Your task to perform on an android device: Go to eBay Image 0: 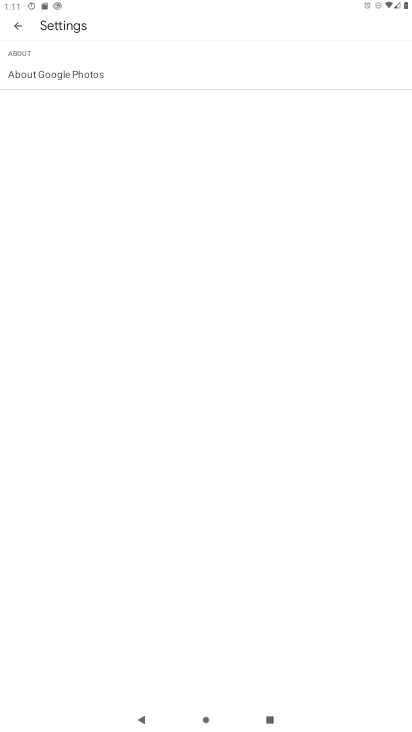
Step 0: press home button
Your task to perform on an android device: Go to eBay Image 1: 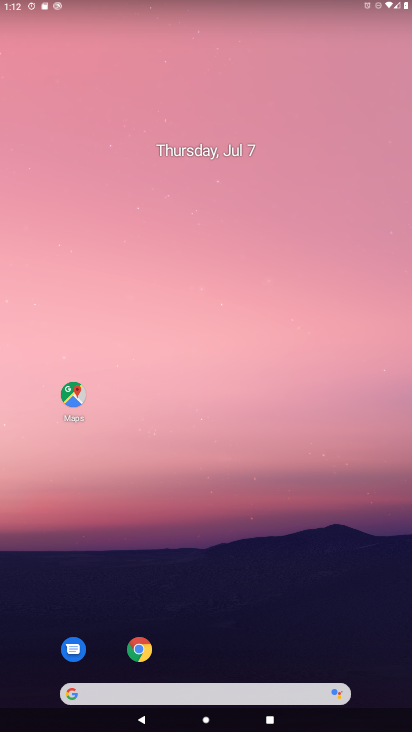
Step 1: click (129, 653)
Your task to perform on an android device: Go to eBay Image 2: 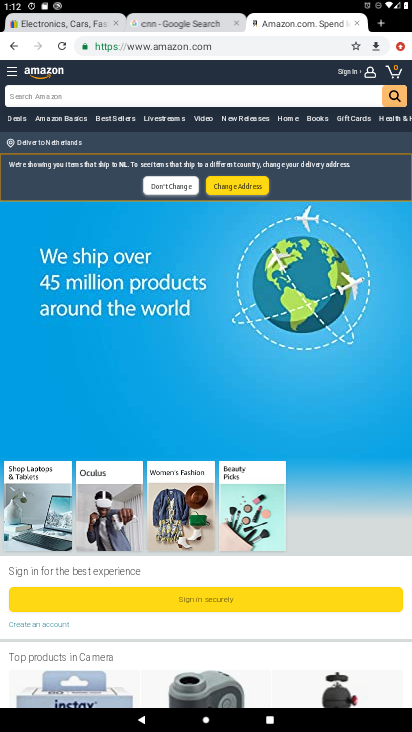
Step 2: click (90, 16)
Your task to perform on an android device: Go to eBay Image 3: 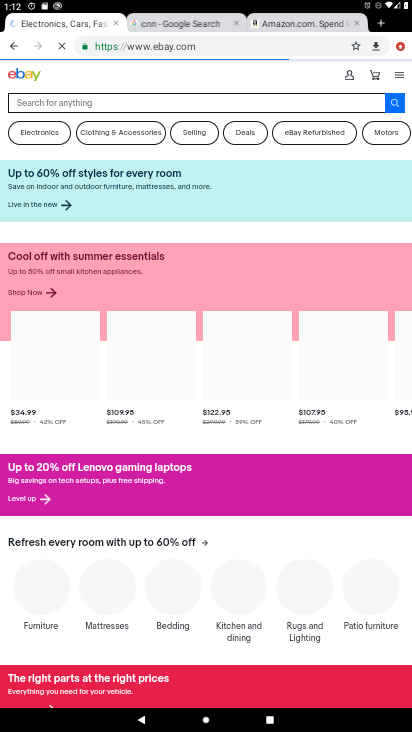
Step 3: click (77, 25)
Your task to perform on an android device: Go to eBay Image 4: 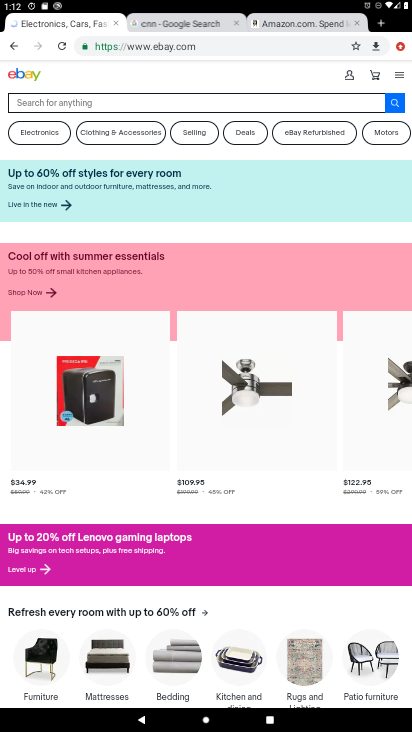
Step 4: task complete